Your task to perform on an android device: empty trash in google photos Image 0: 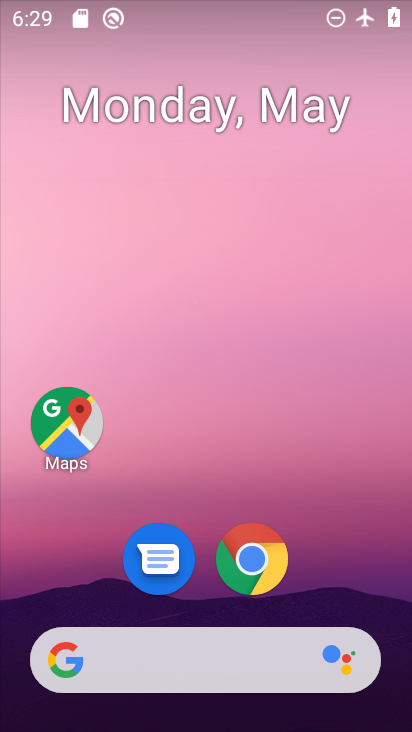
Step 0: drag from (331, 512) to (188, 8)
Your task to perform on an android device: empty trash in google photos Image 1: 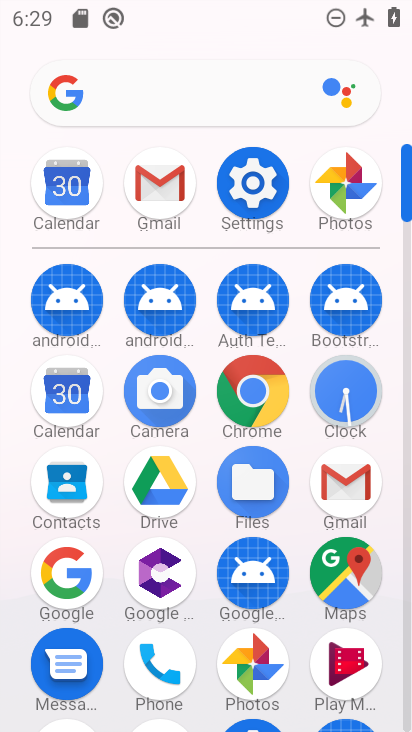
Step 1: click (341, 177)
Your task to perform on an android device: empty trash in google photos Image 2: 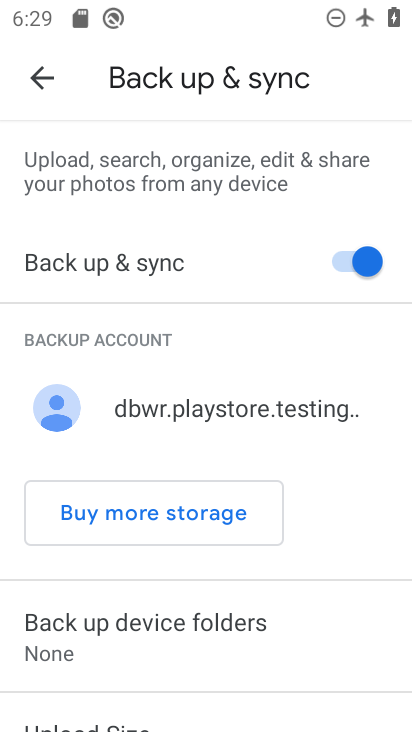
Step 2: click (31, 80)
Your task to perform on an android device: empty trash in google photos Image 3: 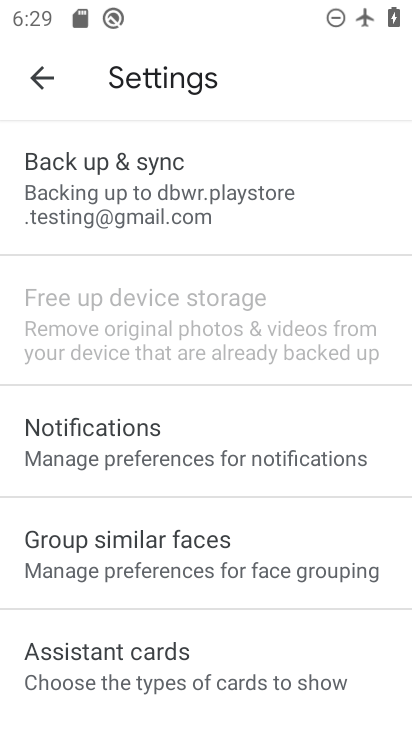
Step 3: click (41, 85)
Your task to perform on an android device: empty trash in google photos Image 4: 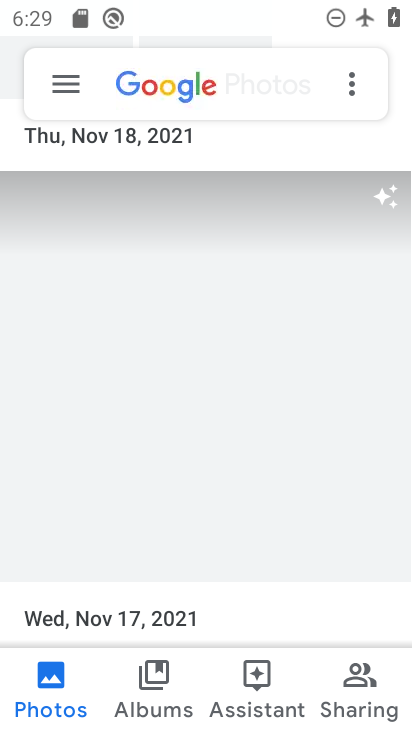
Step 4: click (69, 77)
Your task to perform on an android device: empty trash in google photos Image 5: 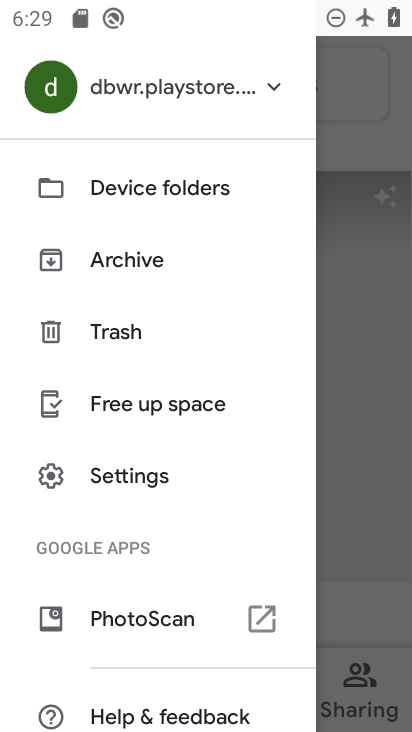
Step 5: click (110, 330)
Your task to perform on an android device: empty trash in google photos Image 6: 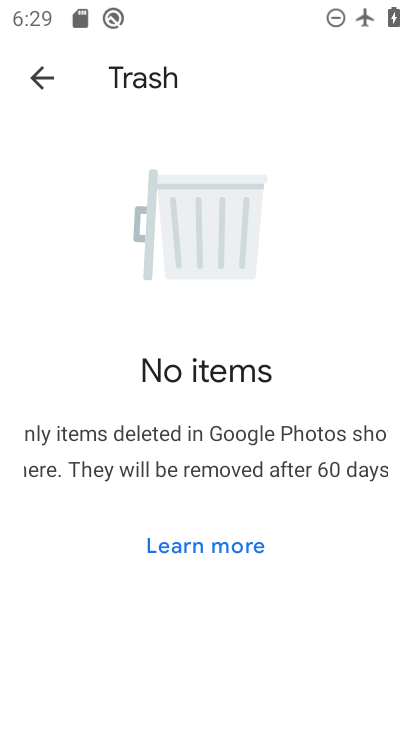
Step 6: task complete